Your task to perform on an android device: check data usage Image 0: 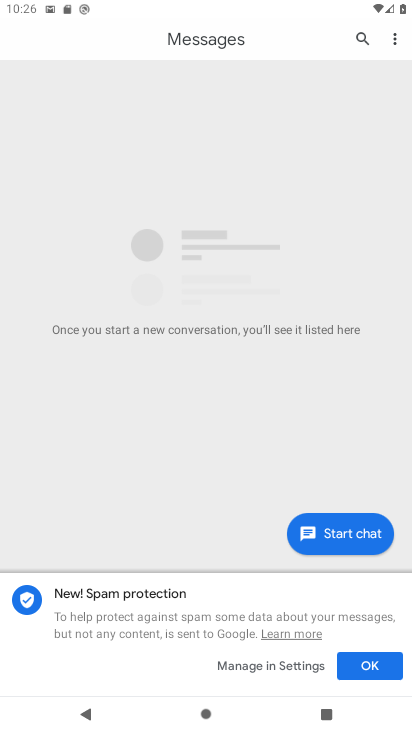
Step 0: press home button
Your task to perform on an android device: check data usage Image 1: 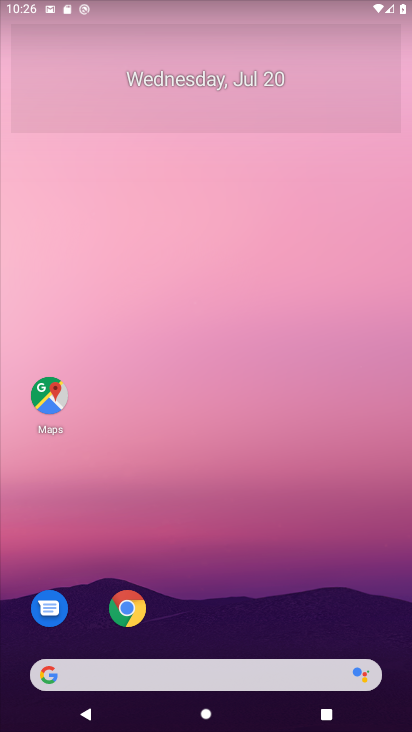
Step 1: drag from (279, 595) to (313, 202)
Your task to perform on an android device: check data usage Image 2: 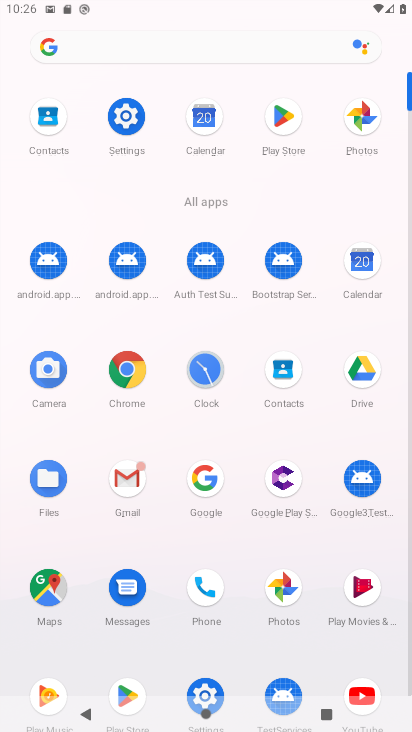
Step 2: click (204, 689)
Your task to perform on an android device: check data usage Image 3: 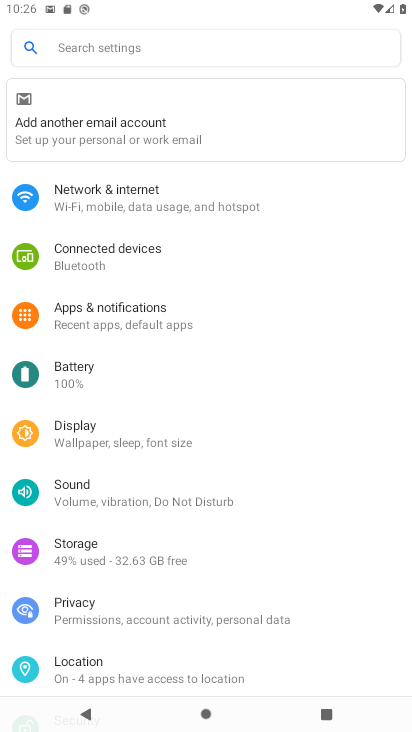
Step 3: click (78, 560)
Your task to perform on an android device: check data usage Image 4: 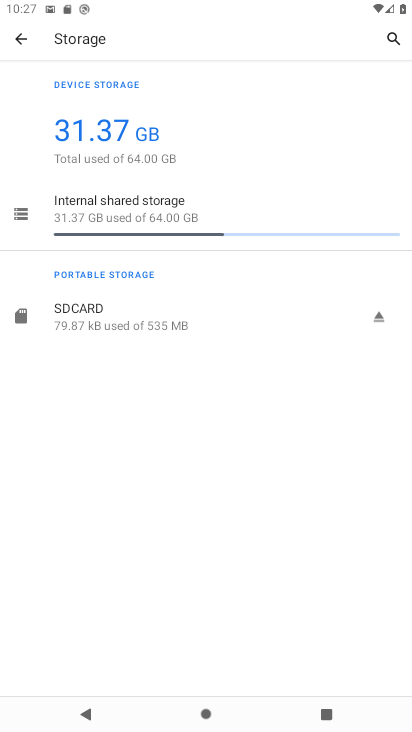
Step 4: task complete